Your task to perform on an android device: choose inbox layout in the gmail app Image 0: 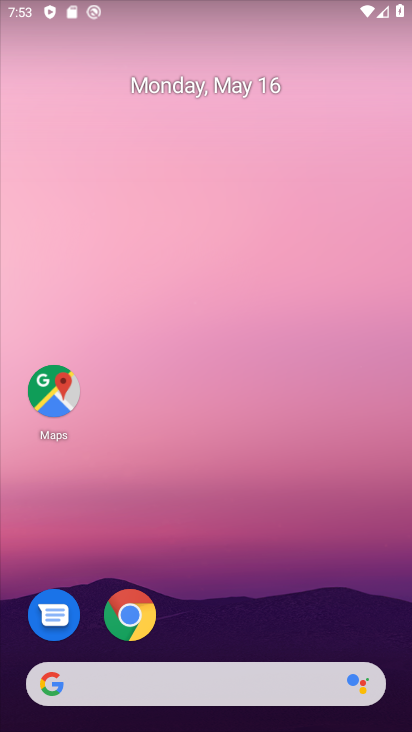
Step 0: drag from (225, 623) to (277, 223)
Your task to perform on an android device: choose inbox layout in the gmail app Image 1: 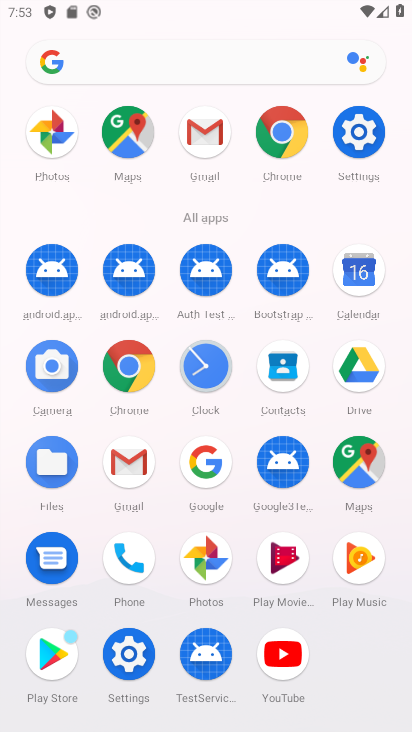
Step 1: click (206, 130)
Your task to perform on an android device: choose inbox layout in the gmail app Image 2: 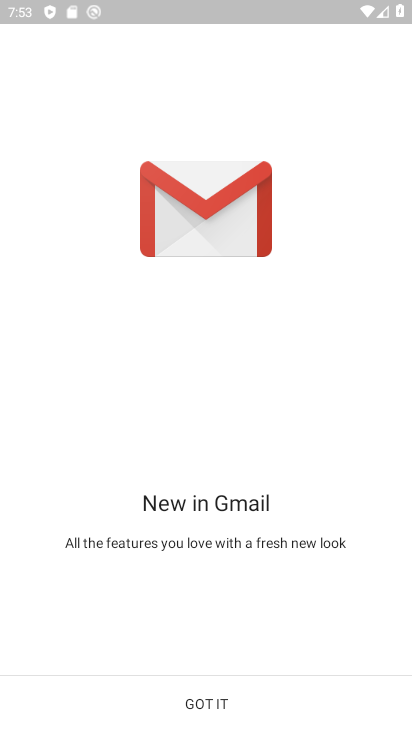
Step 2: click (222, 726)
Your task to perform on an android device: choose inbox layout in the gmail app Image 3: 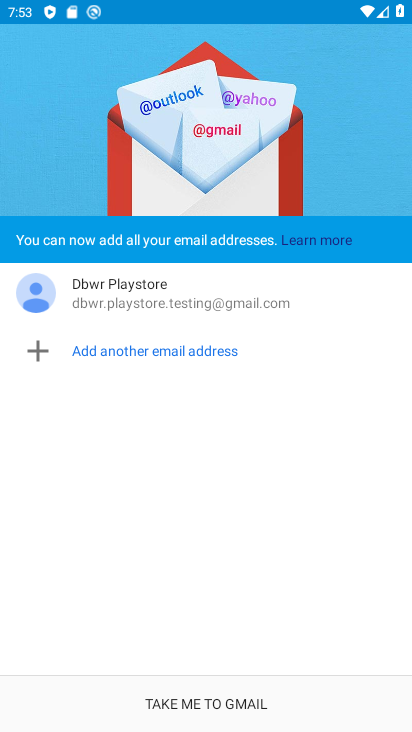
Step 3: click (230, 716)
Your task to perform on an android device: choose inbox layout in the gmail app Image 4: 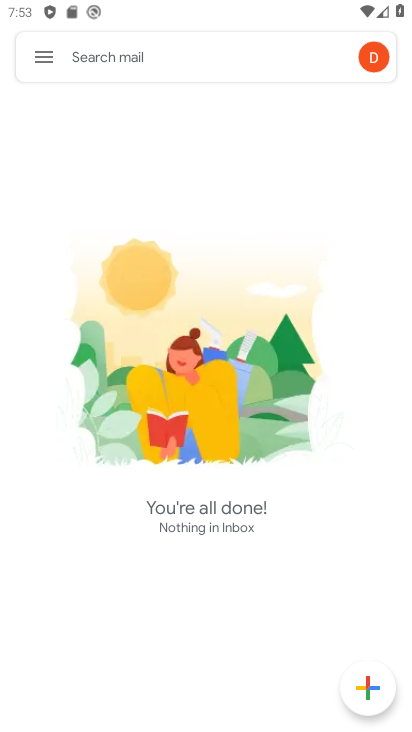
Step 4: click (46, 68)
Your task to perform on an android device: choose inbox layout in the gmail app Image 5: 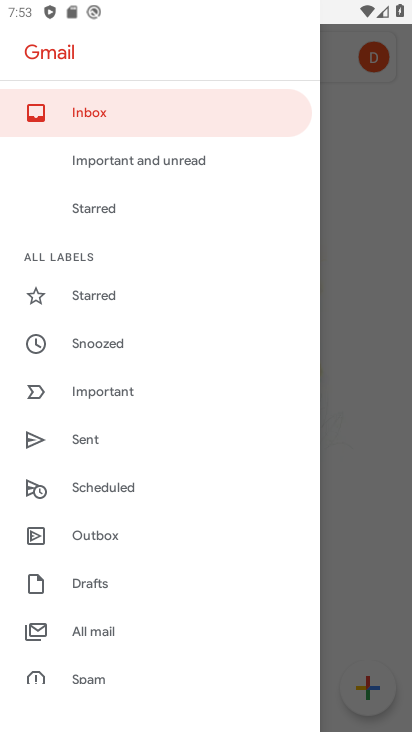
Step 5: drag from (237, 527) to (228, 279)
Your task to perform on an android device: choose inbox layout in the gmail app Image 6: 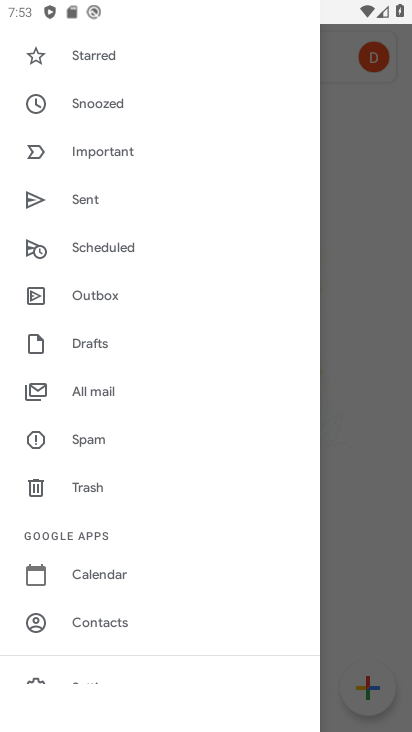
Step 6: drag from (177, 658) to (174, 0)
Your task to perform on an android device: choose inbox layout in the gmail app Image 7: 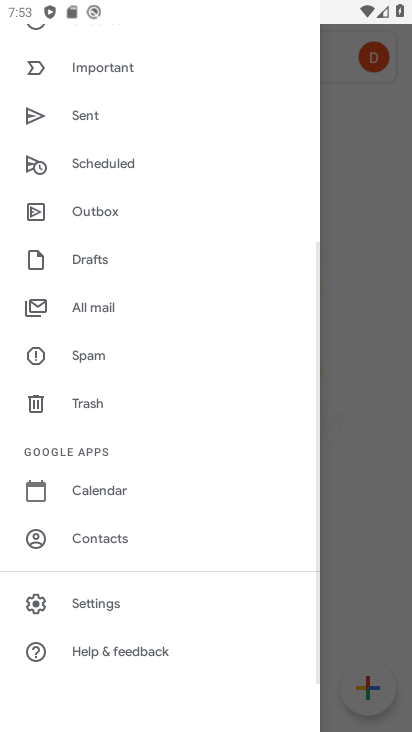
Step 7: click (201, 617)
Your task to perform on an android device: choose inbox layout in the gmail app Image 8: 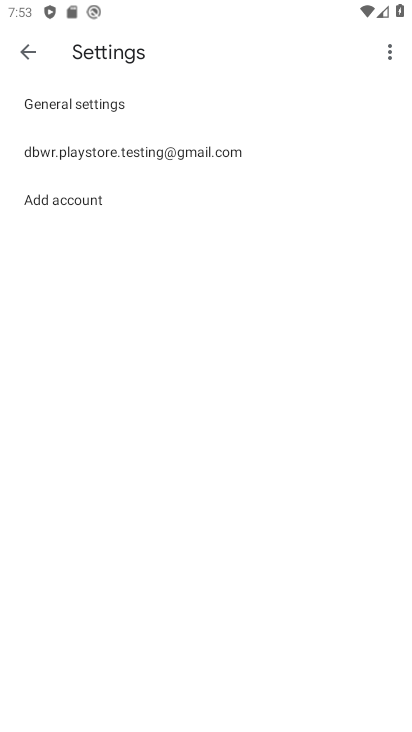
Step 8: click (238, 158)
Your task to perform on an android device: choose inbox layout in the gmail app Image 9: 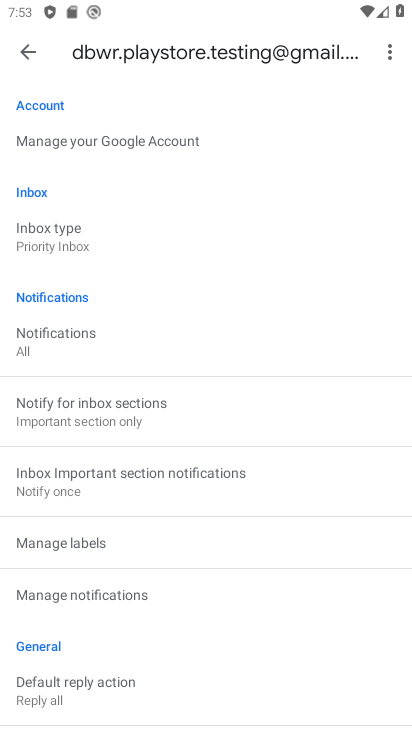
Step 9: click (117, 250)
Your task to perform on an android device: choose inbox layout in the gmail app Image 10: 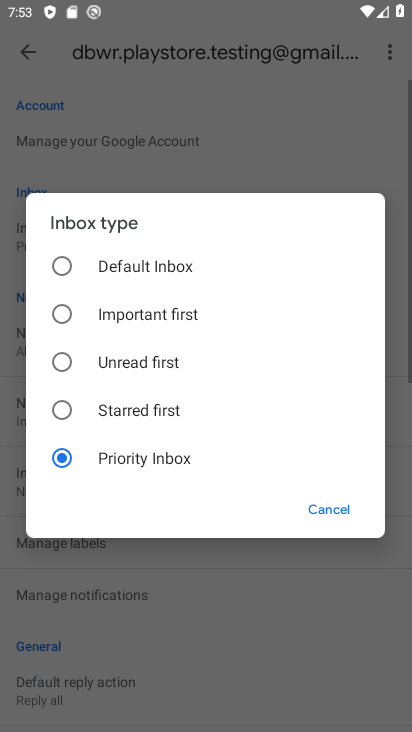
Step 10: click (174, 376)
Your task to perform on an android device: choose inbox layout in the gmail app Image 11: 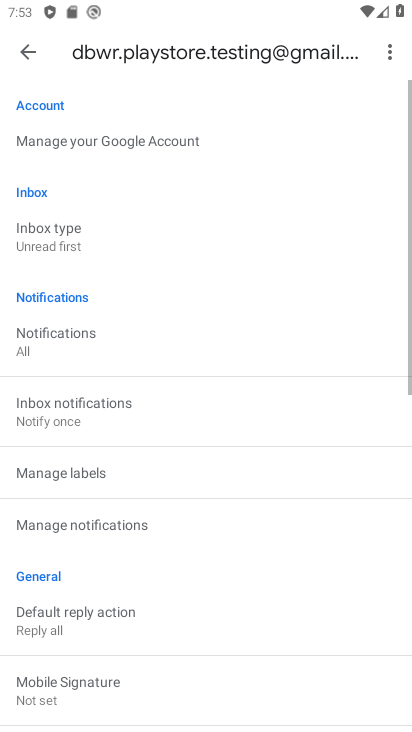
Step 11: task complete